Your task to perform on an android device: manage bookmarks in the chrome app Image 0: 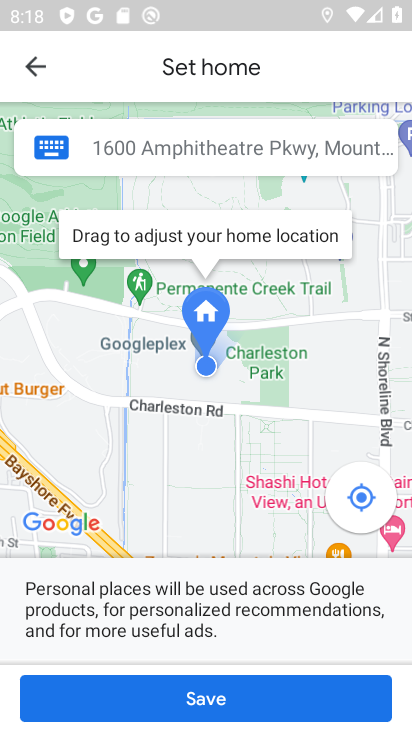
Step 0: press home button
Your task to perform on an android device: manage bookmarks in the chrome app Image 1: 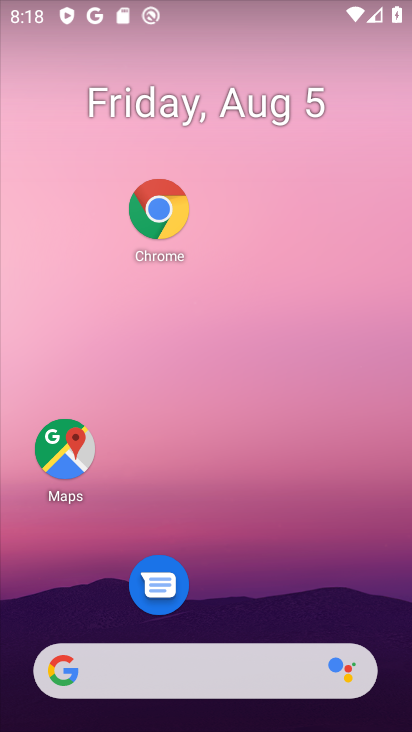
Step 1: drag from (259, 623) to (188, 41)
Your task to perform on an android device: manage bookmarks in the chrome app Image 2: 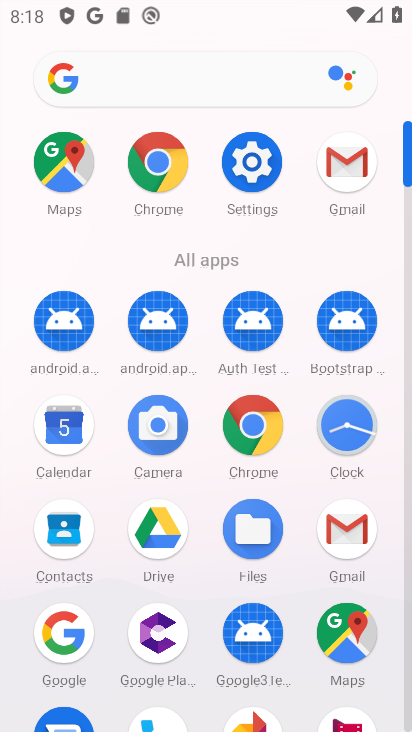
Step 2: click (167, 165)
Your task to perform on an android device: manage bookmarks in the chrome app Image 3: 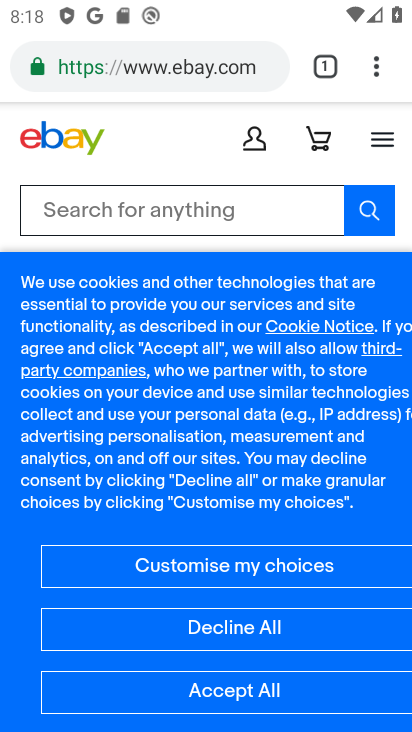
Step 3: click (391, 67)
Your task to perform on an android device: manage bookmarks in the chrome app Image 4: 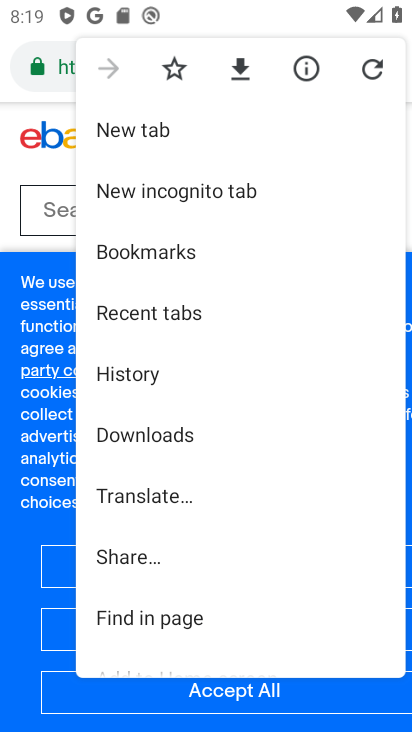
Step 4: click (169, 249)
Your task to perform on an android device: manage bookmarks in the chrome app Image 5: 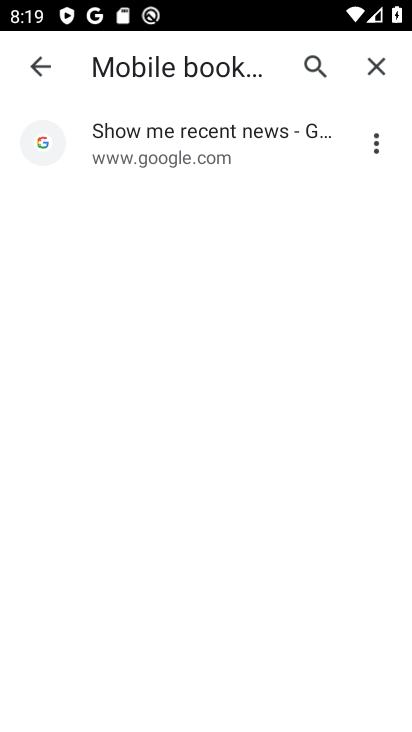
Step 5: click (373, 138)
Your task to perform on an android device: manage bookmarks in the chrome app Image 6: 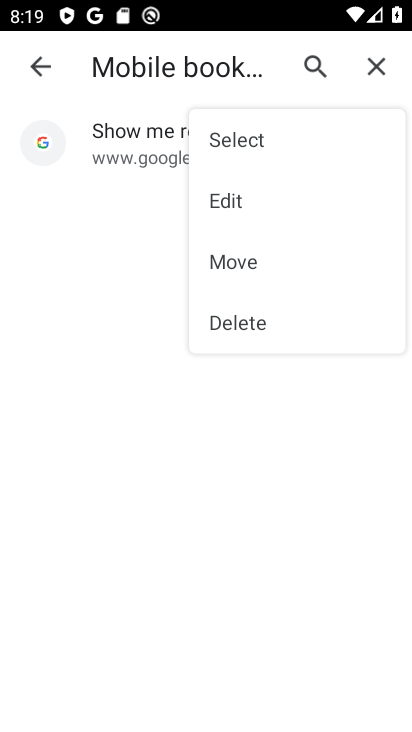
Step 6: click (248, 194)
Your task to perform on an android device: manage bookmarks in the chrome app Image 7: 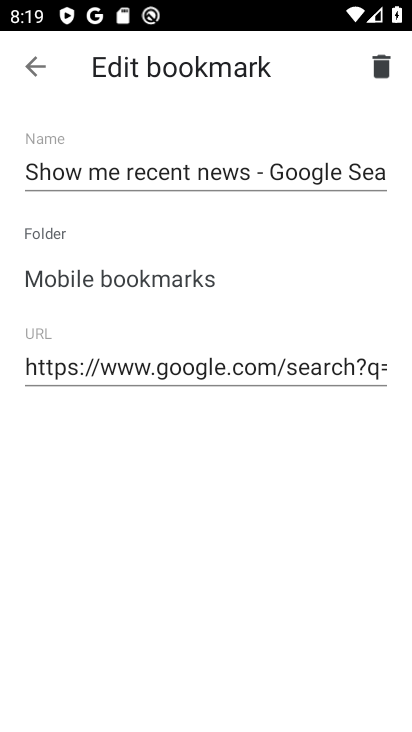
Step 7: click (379, 64)
Your task to perform on an android device: manage bookmarks in the chrome app Image 8: 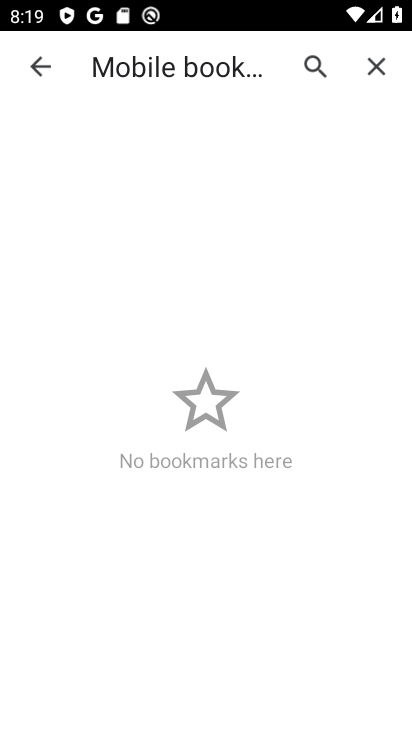
Step 8: task complete